Your task to perform on an android device: turn on location history Image 0: 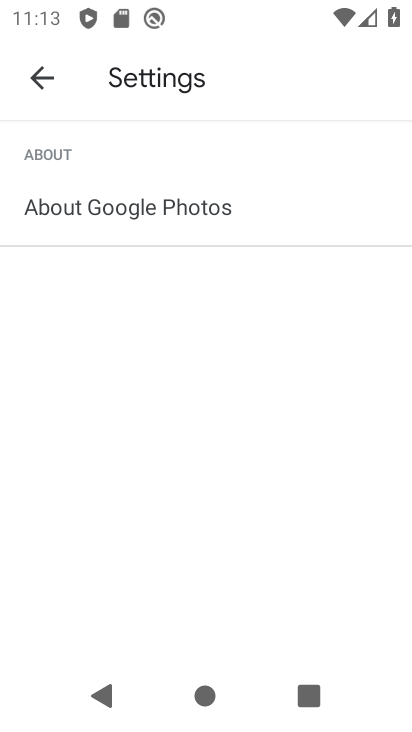
Step 0: press home button
Your task to perform on an android device: turn on location history Image 1: 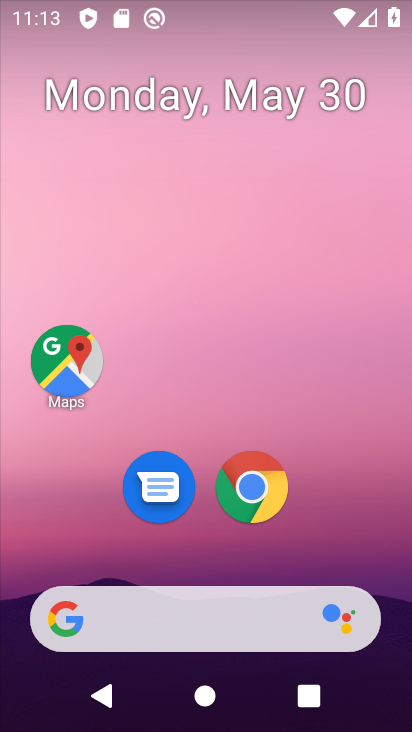
Step 1: click (68, 378)
Your task to perform on an android device: turn on location history Image 2: 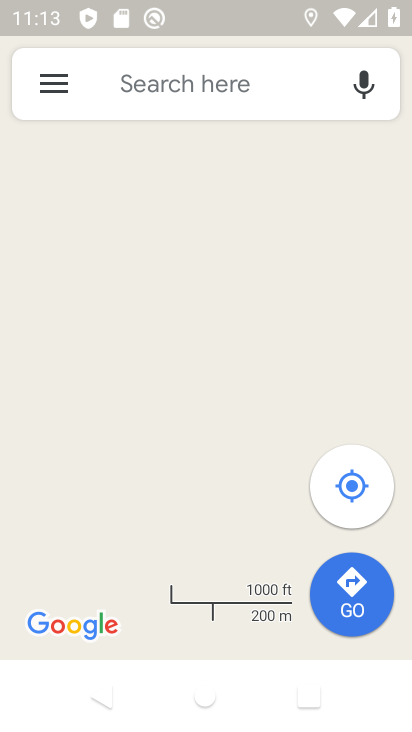
Step 2: click (47, 83)
Your task to perform on an android device: turn on location history Image 3: 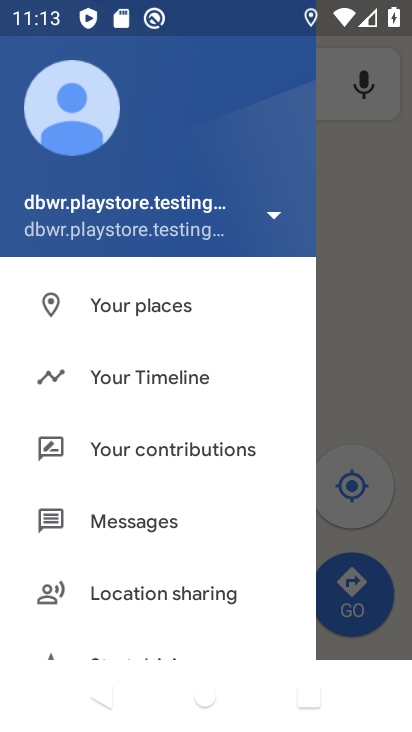
Step 3: click (159, 371)
Your task to perform on an android device: turn on location history Image 4: 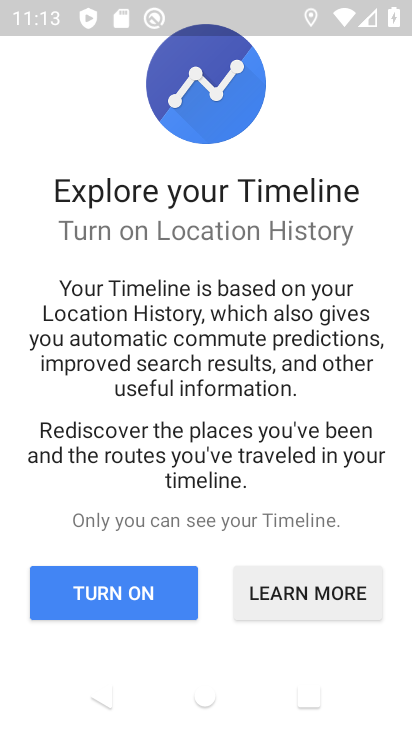
Step 4: drag from (324, 475) to (278, 199)
Your task to perform on an android device: turn on location history Image 5: 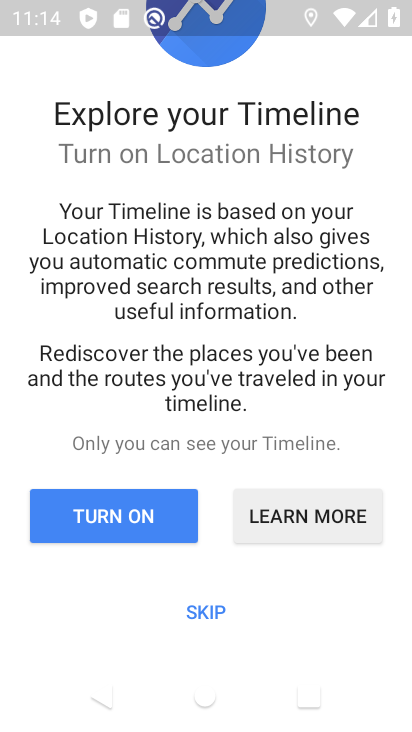
Step 5: click (157, 527)
Your task to perform on an android device: turn on location history Image 6: 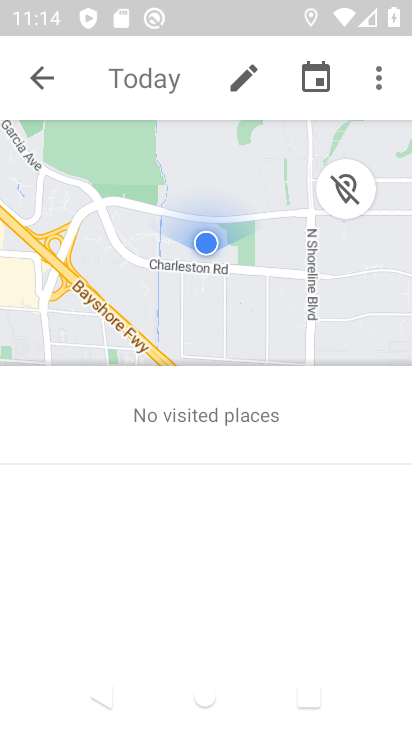
Step 6: click (380, 76)
Your task to perform on an android device: turn on location history Image 7: 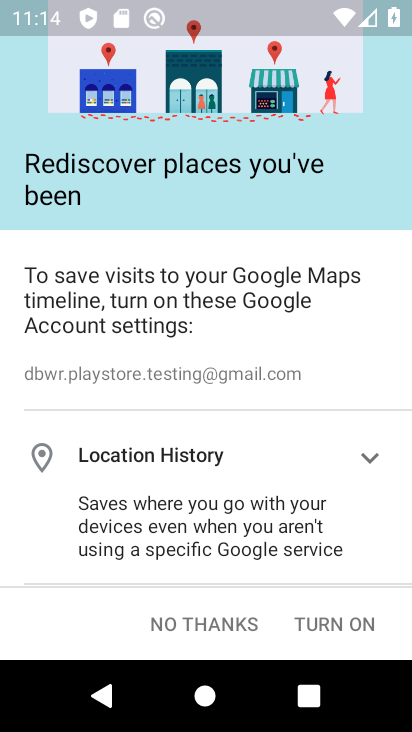
Step 7: drag from (271, 431) to (231, 206)
Your task to perform on an android device: turn on location history Image 8: 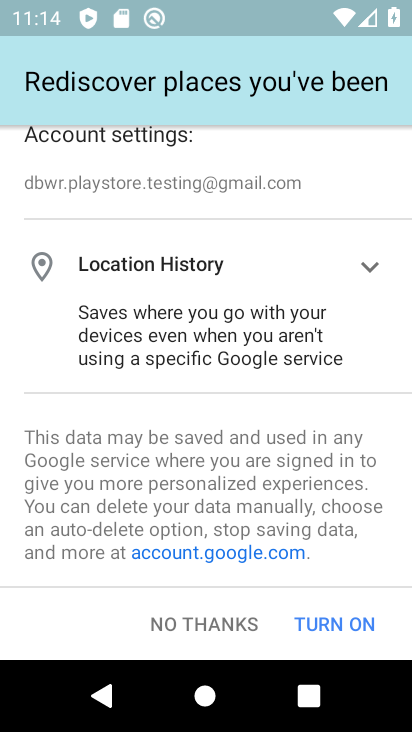
Step 8: drag from (288, 439) to (240, 133)
Your task to perform on an android device: turn on location history Image 9: 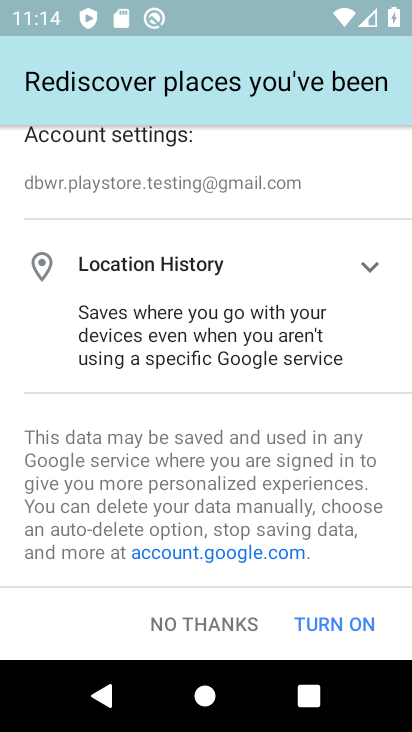
Step 9: click (350, 628)
Your task to perform on an android device: turn on location history Image 10: 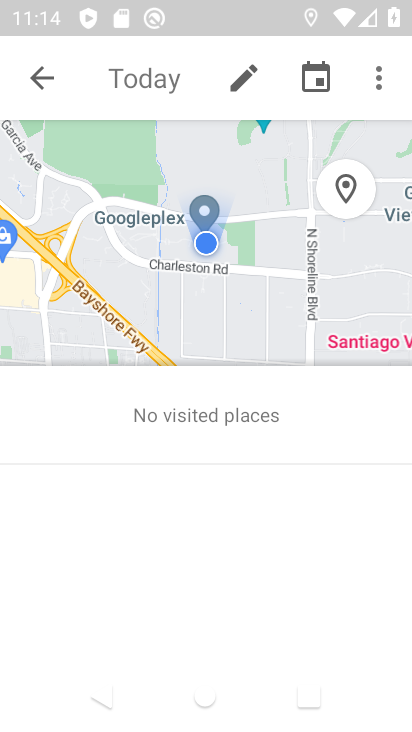
Step 10: click (374, 81)
Your task to perform on an android device: turn on location history Image 11: 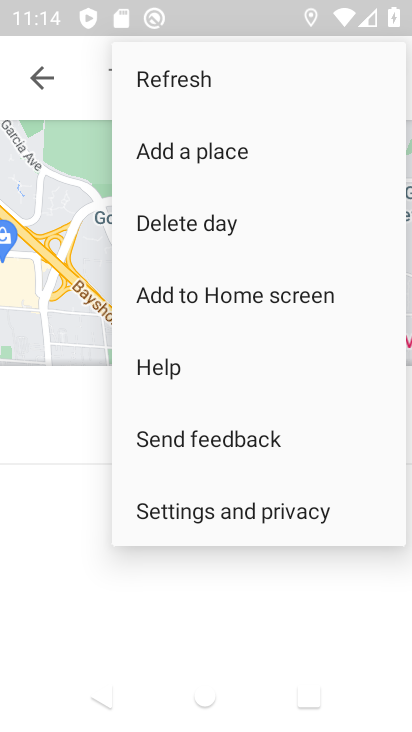
Step 11: click (245, 500)
Your task to perform on an android device: turn on location history Image 12: 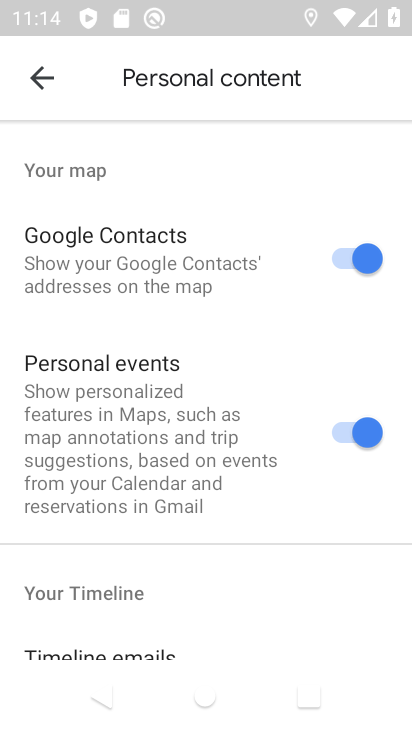
Step 12: drag from (245, 513) to (167, 222)
Your task to perform on an android device: turn on location history Image 13: 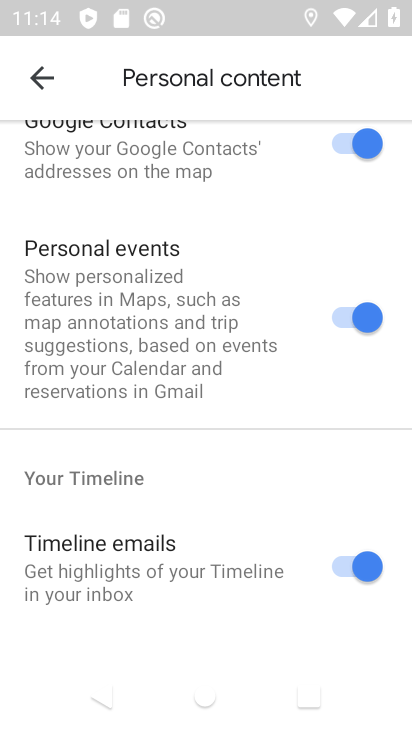
Step 13: drag from (220, 488) to (199, 168)
Your task to perform on an android device: turn on location history Image 14: 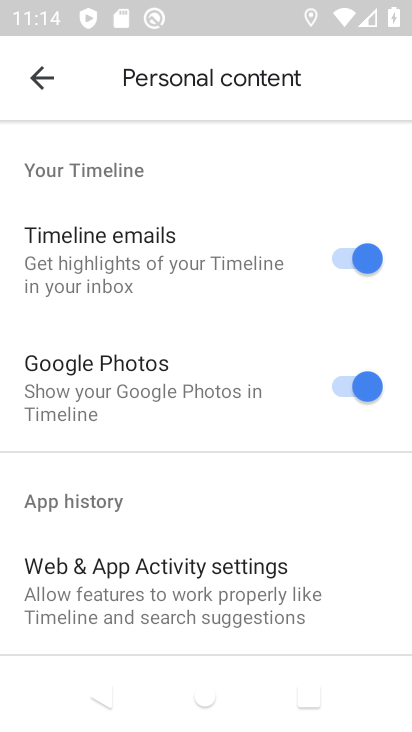
Step 14: drag from (198, 539) to (190, 235)
Your task to perform on an android device: turn on location history Image 15: 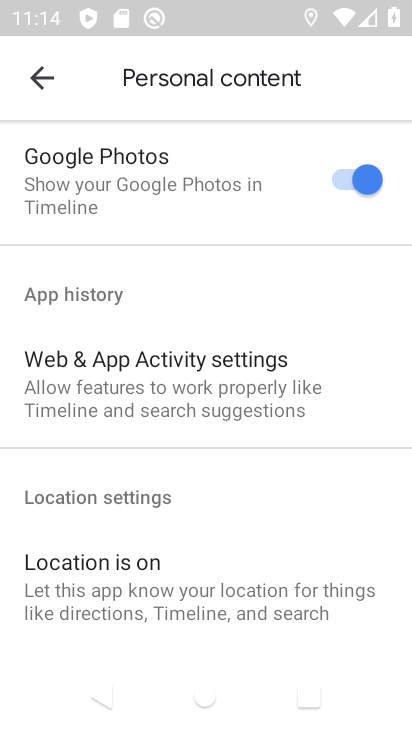
Step 15: drag from (228, 486) to (194, 174)
Your task to perform on an android device: turn on location history Image 16: 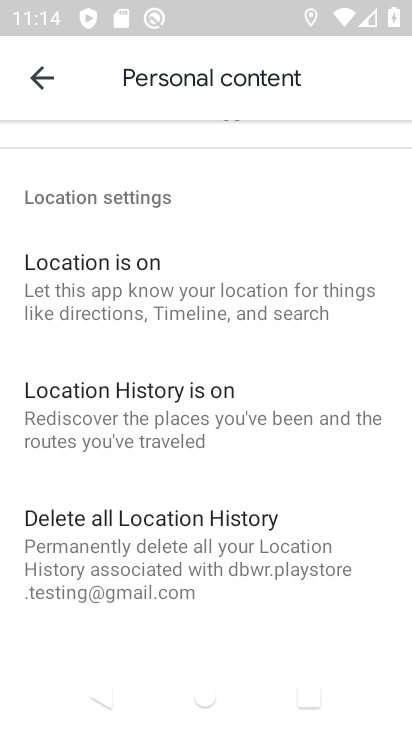
Step 16: click (148, 391)
Your task to perform on an android device: turn on location history Image 17: 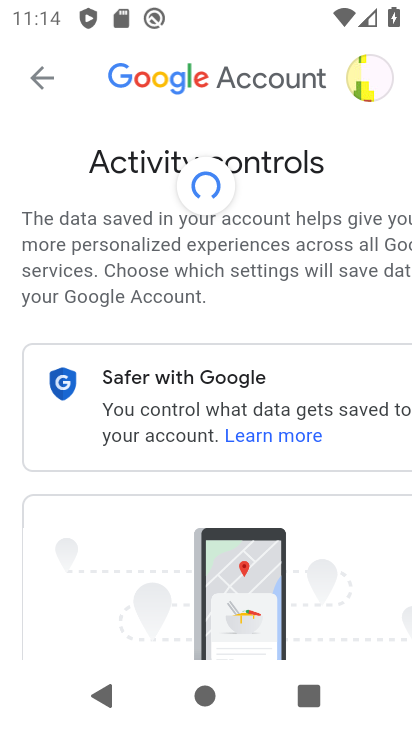
Step 17: task complete